Your task to perform on an android device: move a message to another label in the gmail app Image 0: 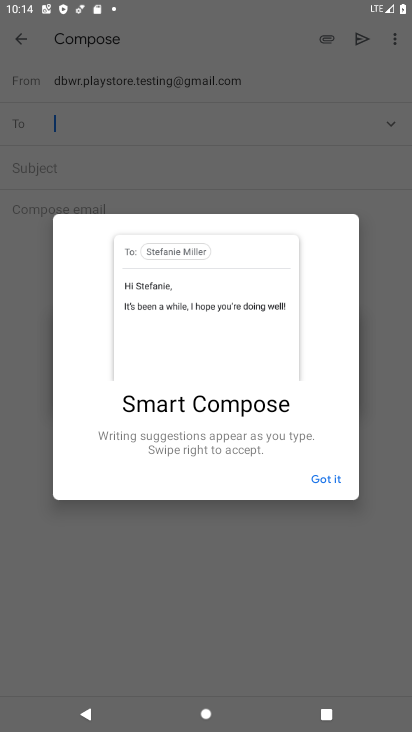
Step 0: press home button
Your task to perform on an android device: move a message to another label in the gmail app Image 1: 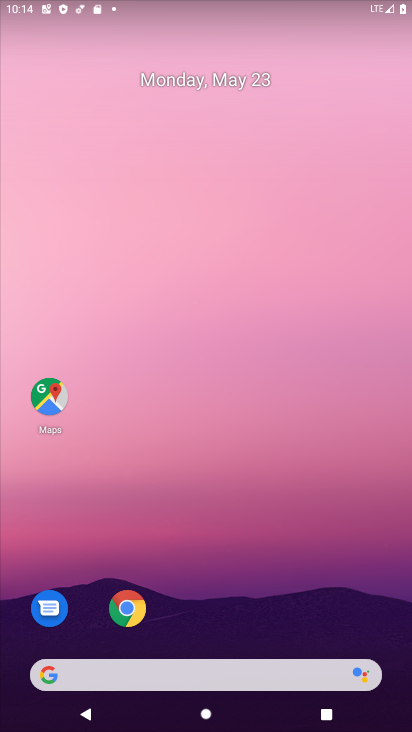
Step 1: drag from (189, 661) to (291, 184)
Your task to perform on an android device: move a message to another label in the gmail app Image 2: 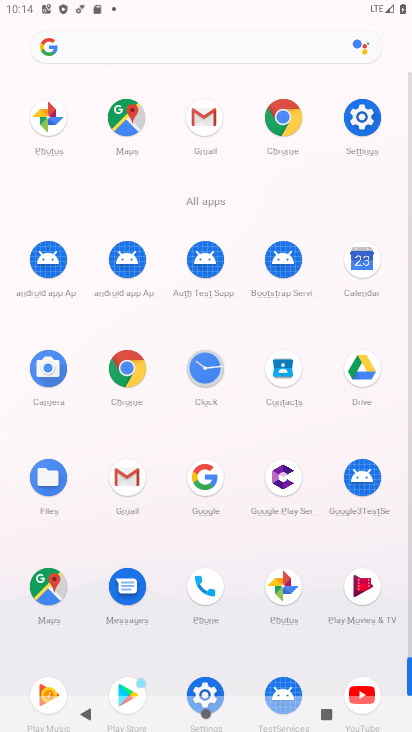
Step 2: click (124, 475)
Your task to perform on an android device: move a message to another label in the gmail app Image 3: 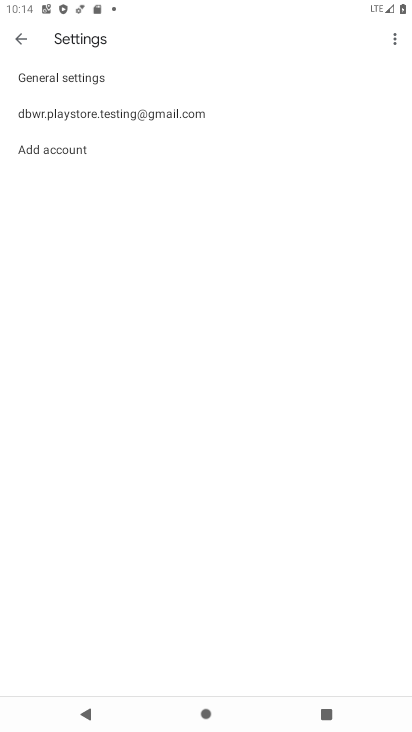
Step 3: click (30, 42)
Your task to perform on an android device: move a message to another label in the gmail app Image 4: 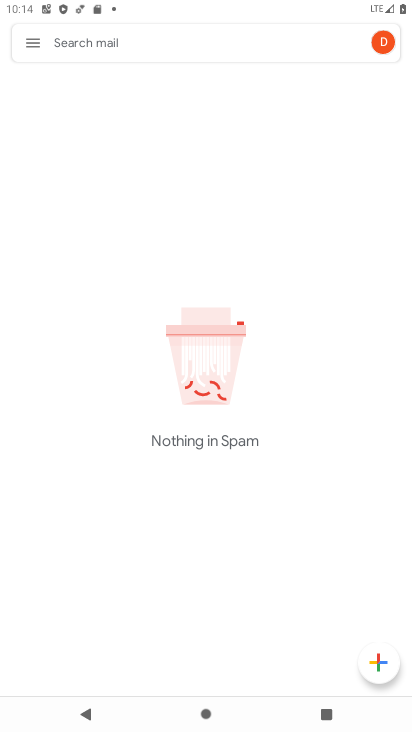
Step 4: click (53, 46)
Your task to perform on an android device: move a message to another label in the gmail app Image 5: 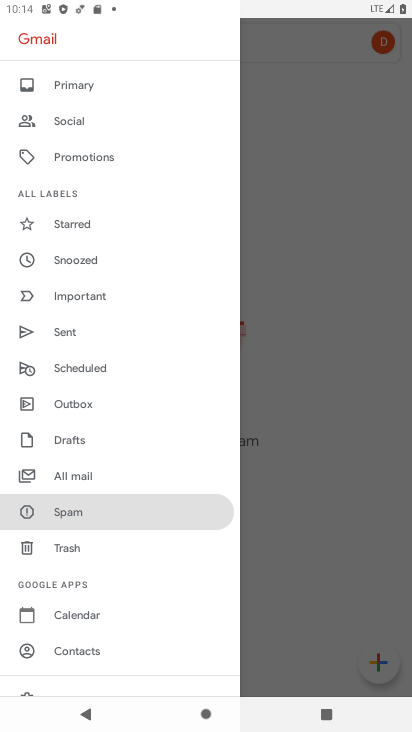
Step 5: click (114, 470)
Your task to perform on an android device: move a message to another label in the gmail app Image 6: 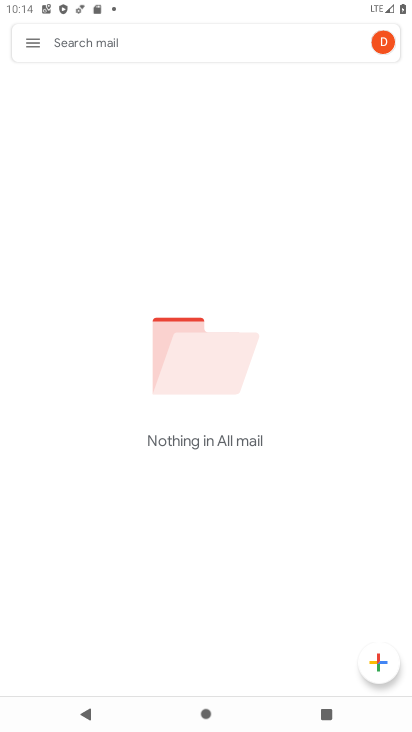
Step 6: task complete